Your task to perform on an android device: uninstall "VLC for Android" Image 0: 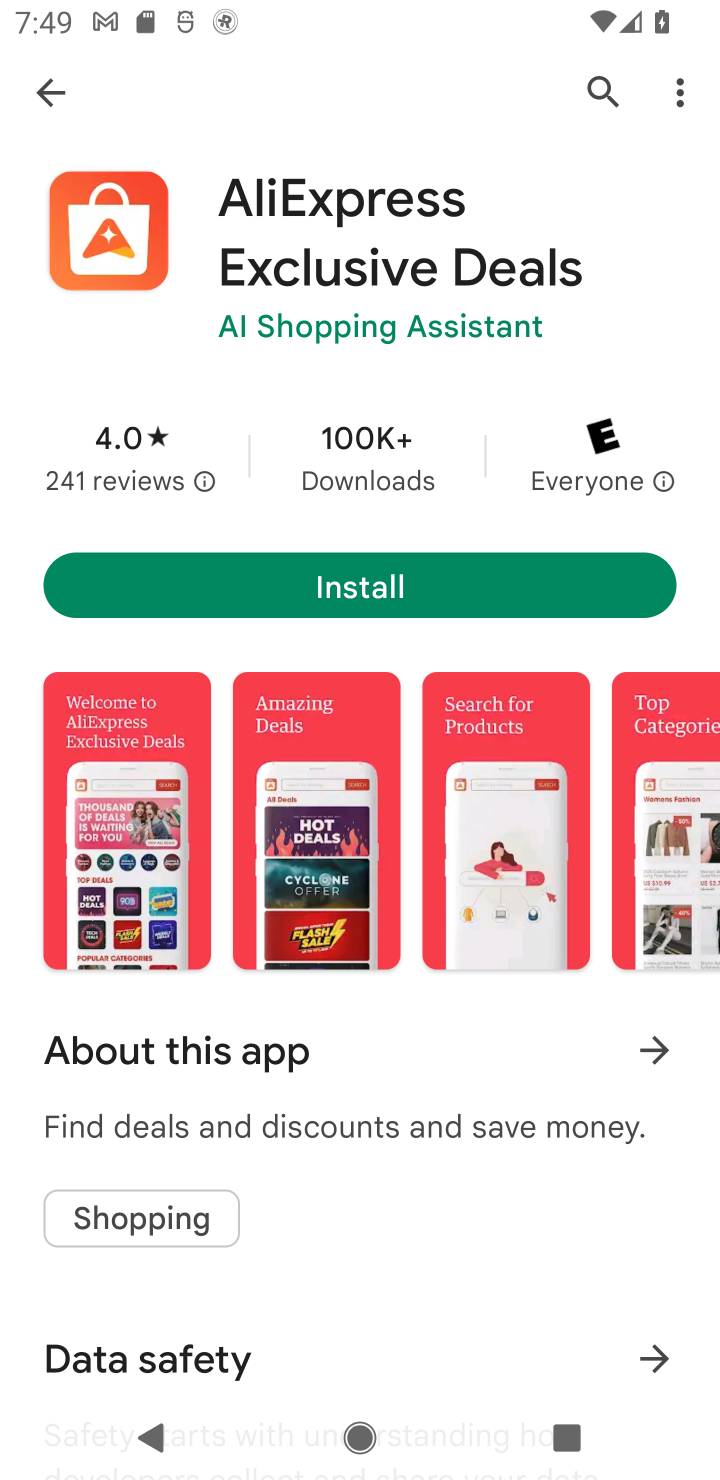
Step 0: click (605, 82)
Your task to perform on an android device: uninstall "VLC for Android" Image 1: 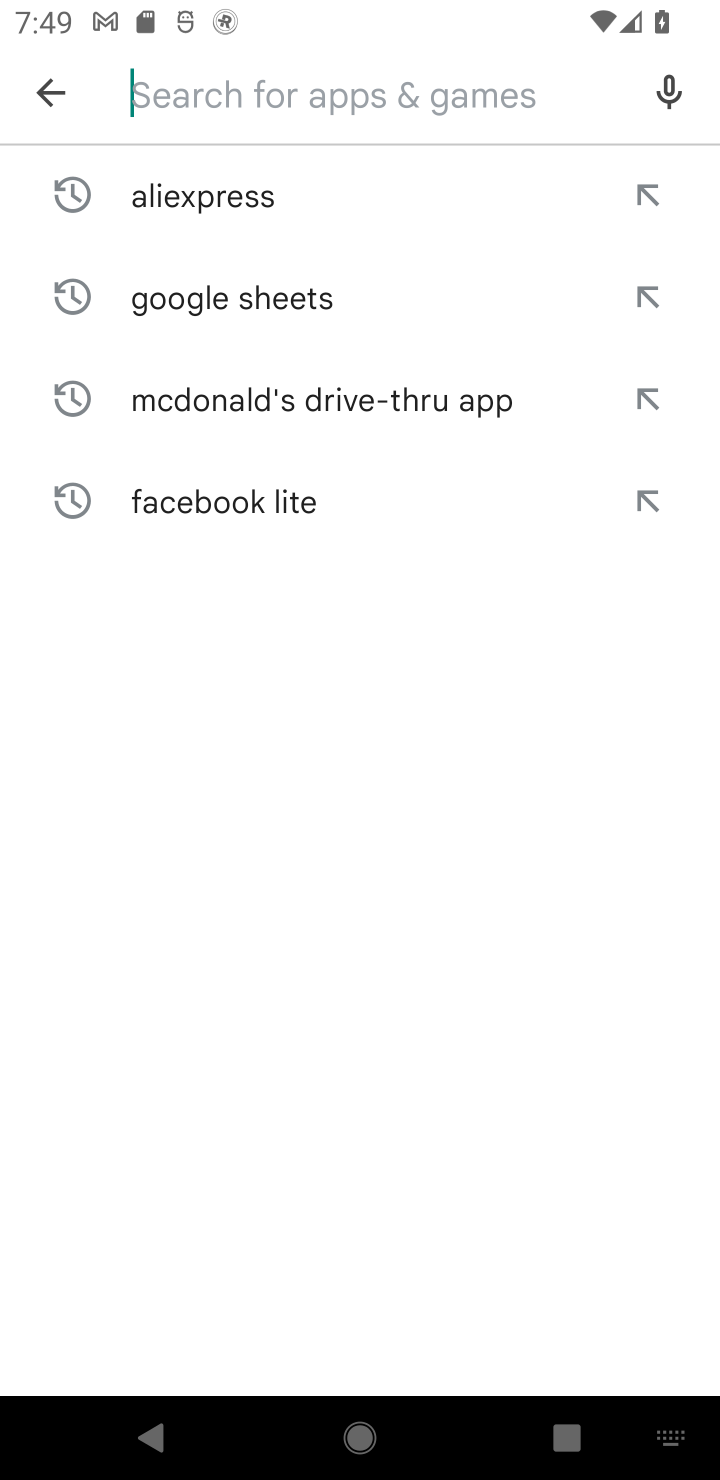
Step 1: type "VLC for Android"
Your task to perform on an android device: uninstall "VLC for Android" Image 2: 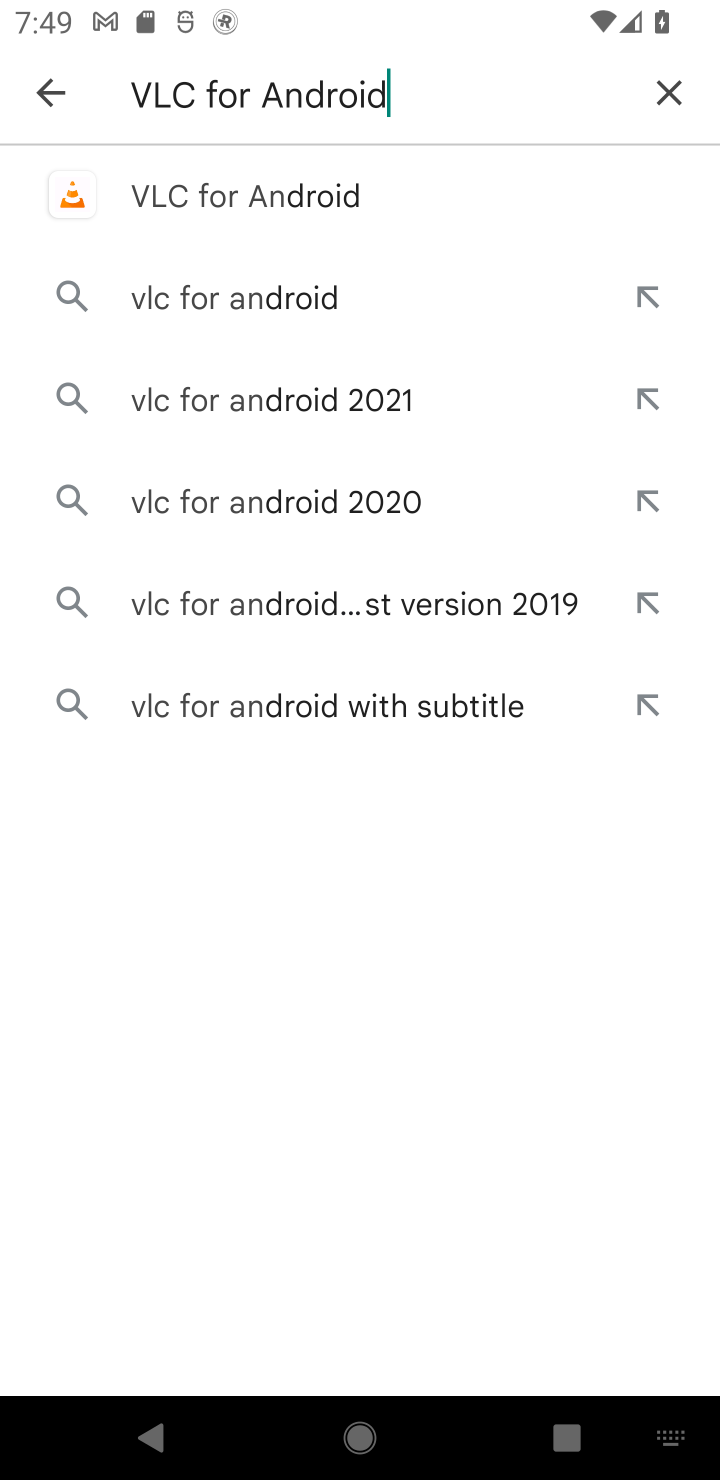
Step 2: type ""
Your task to perform on an android device: uninstall "VLC for Android" Image 3: 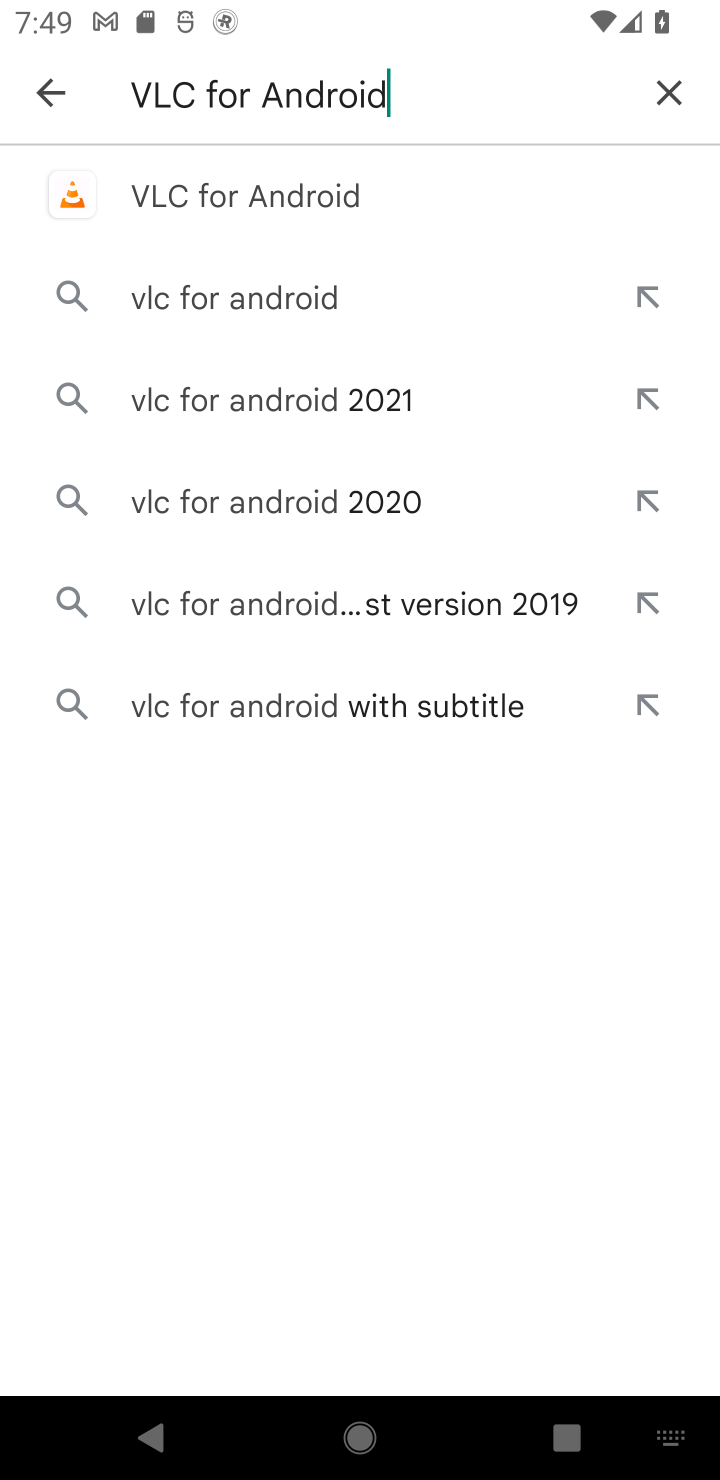
Step 3: click (255, 223)
Your task to perform on an android device: uninstall "VLC for Android" Image 4: 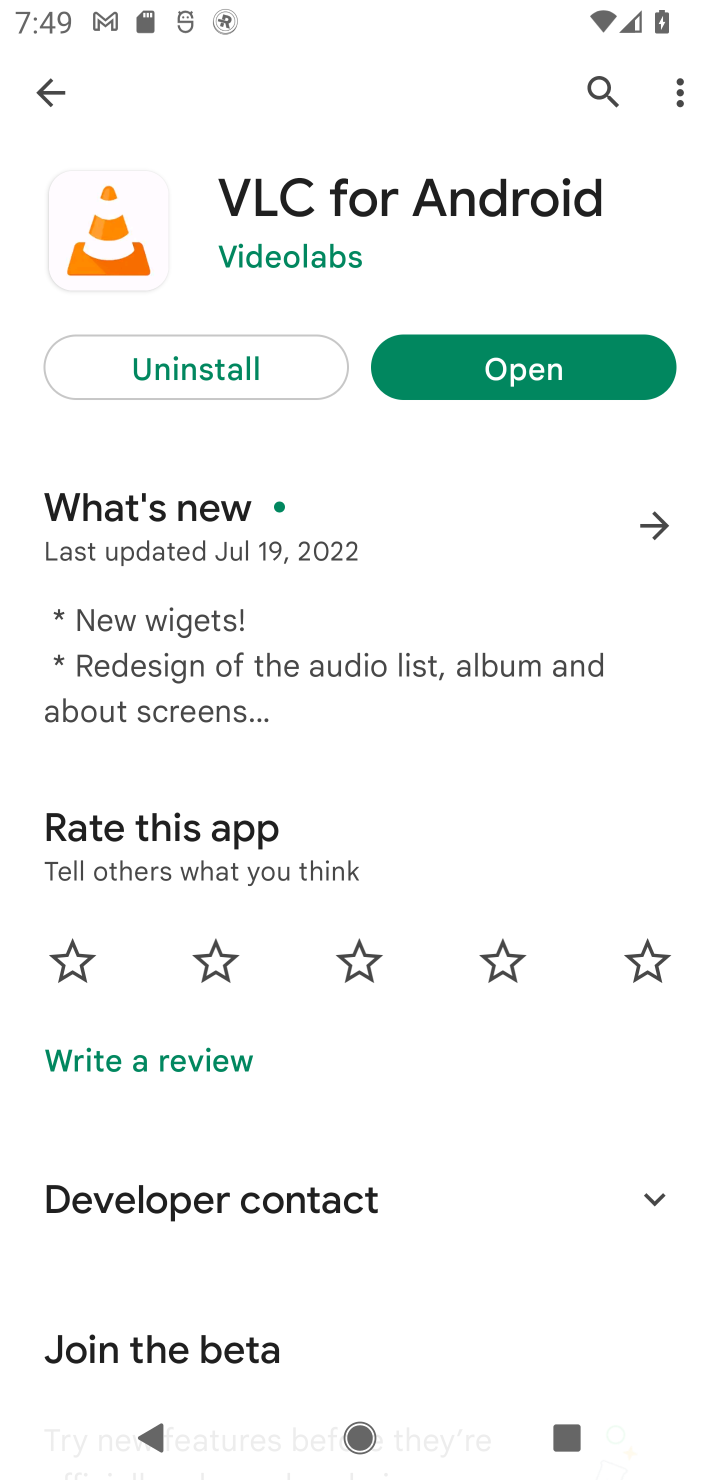
Step 4: click (106, 388)
Your task to perform on an android device: uninstall "VLC for Android" Image 5: 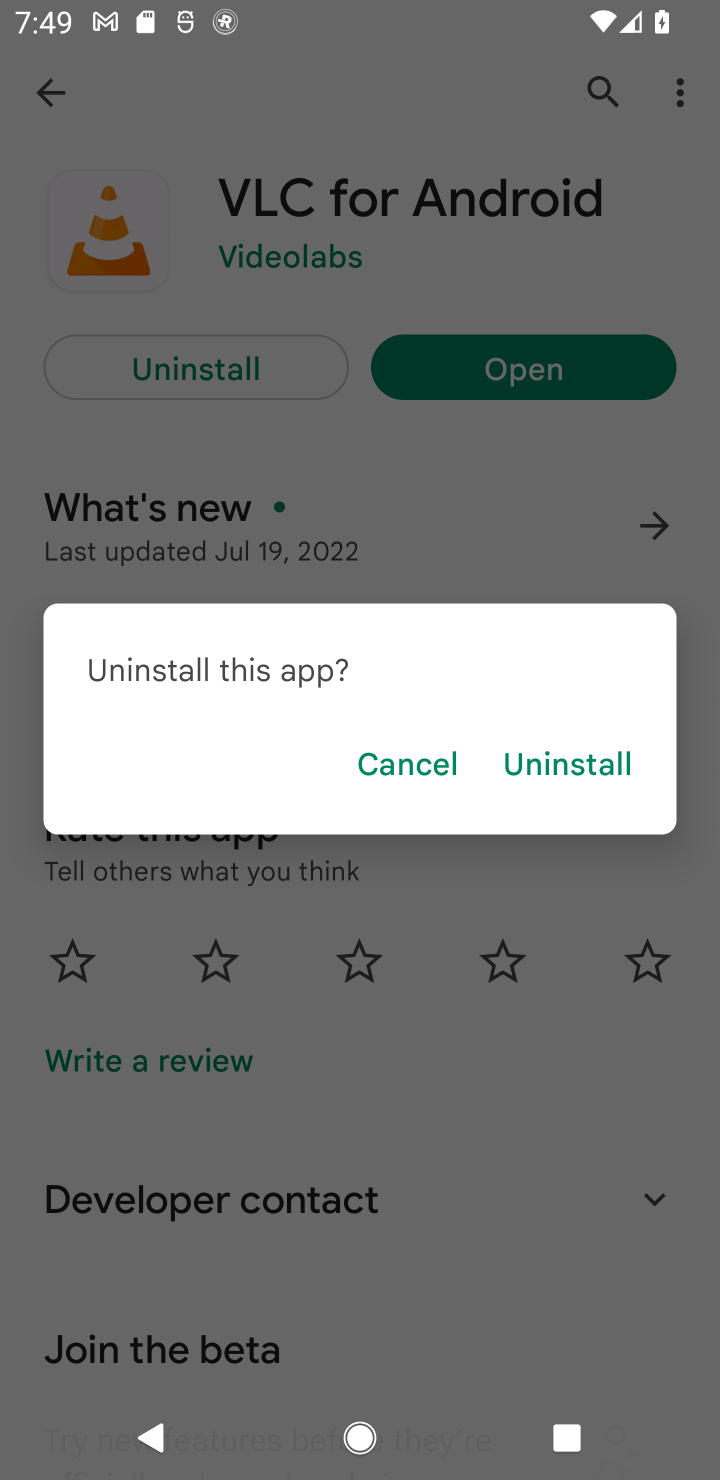
Step 5: click (573, 749)
Your task to perform on an android device: uninstall "VLC for Android" Image 6: 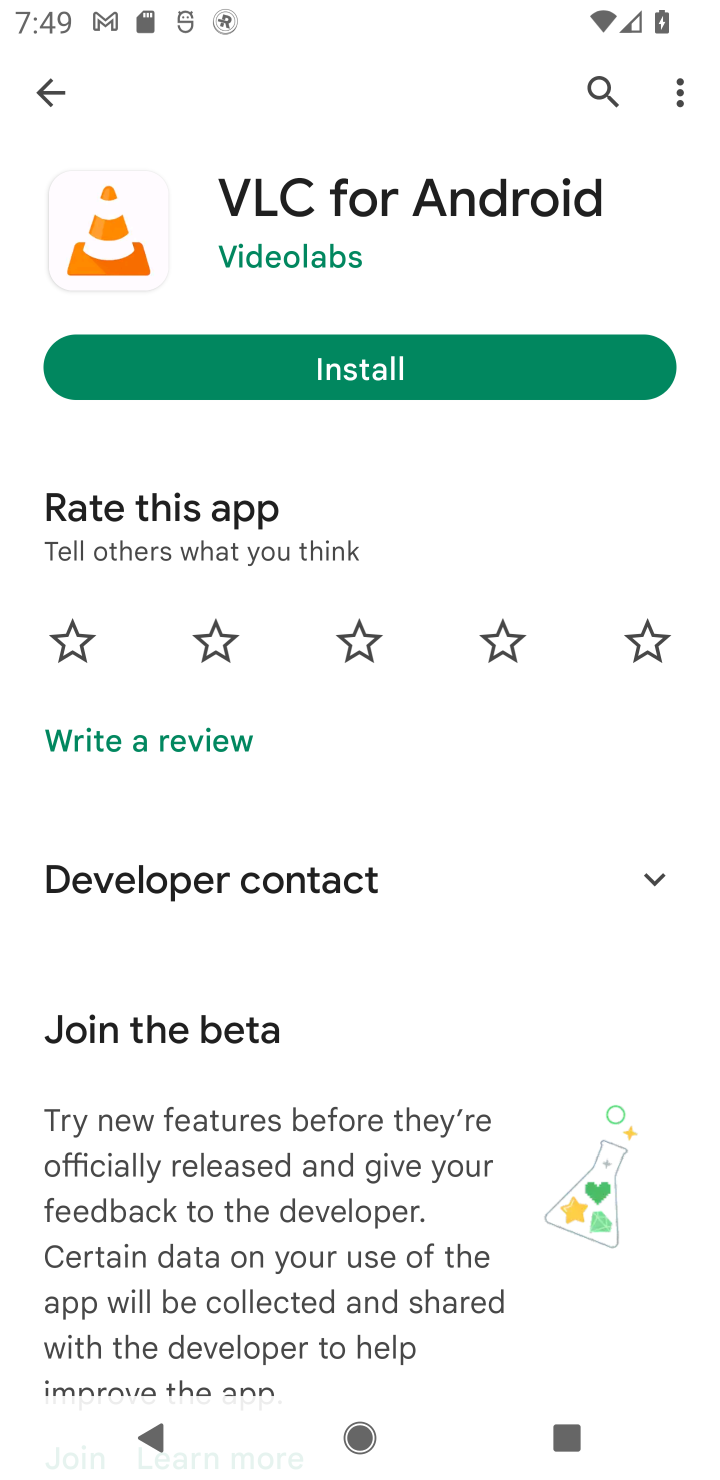
Step 6: task complete